Your task to perform on an android device: turn on bluetooth scan Image 0: 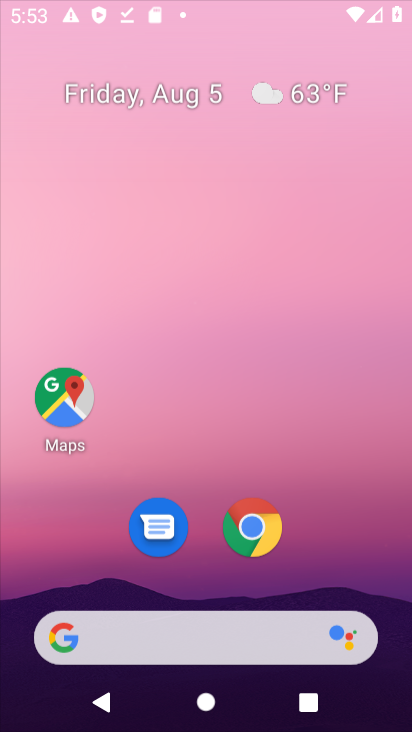
Step 0: click (191, 20)
Your task to perform on an android device: turn on bluetooth scan Image 1: 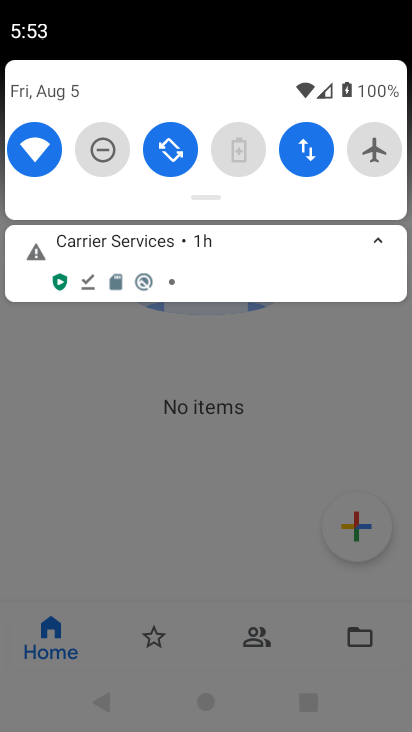
Step 1: drag from (237, 550) to (263, 142)
Your task to perform on an android device: turn on bluetooth scan Image 2: 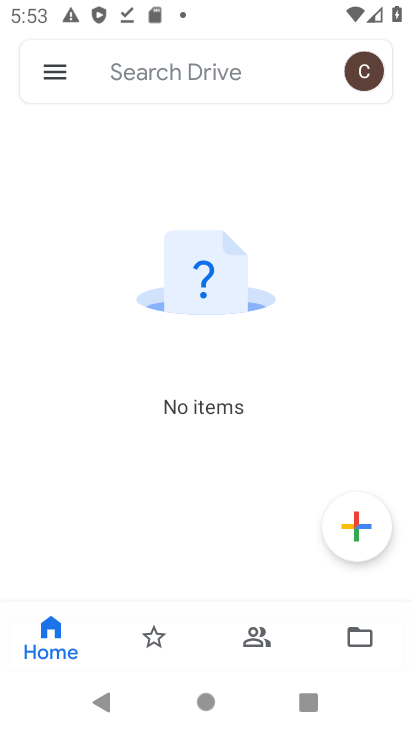
Step 2: press home button
Your task to perform on an android device: turn on bluetooth scan Image 3: 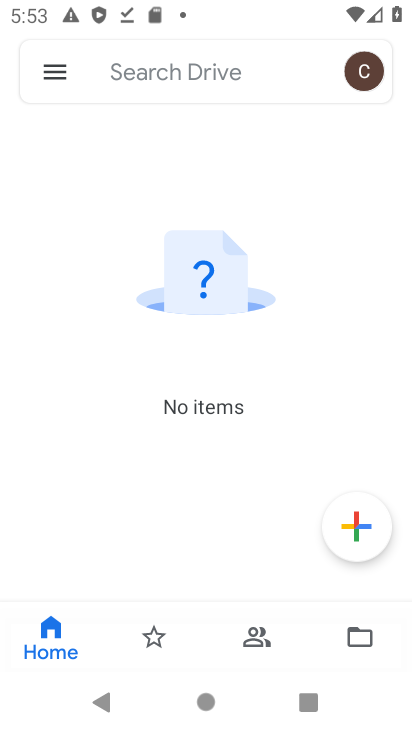
Step 3: press home button
Your task to perform on an android device: turn on bluetooth scan Image 4: 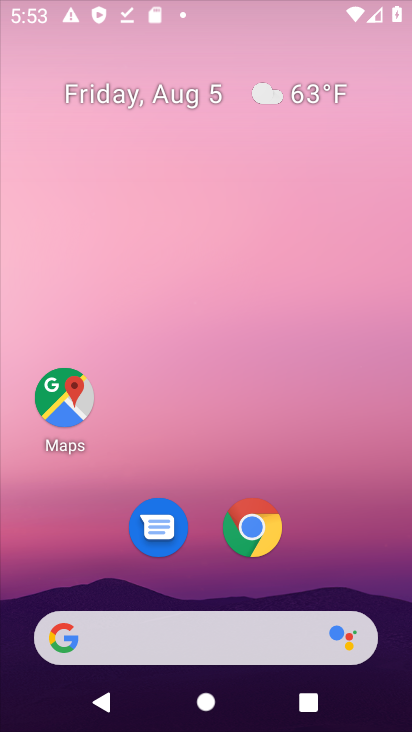
Step 4: drag from (212, 498) to (169, 101)
Your task to perform on an android device: turn on bluetooth scan Image 5: 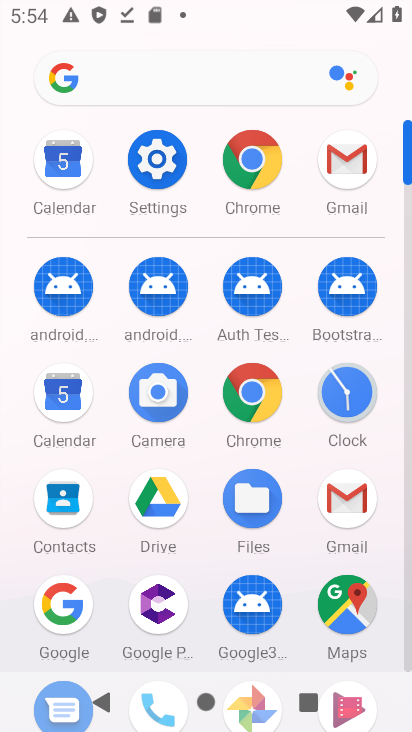
Step 5: click (164, 163)
Your task to perform on an android device: turn on bluetooth scan Image 6: 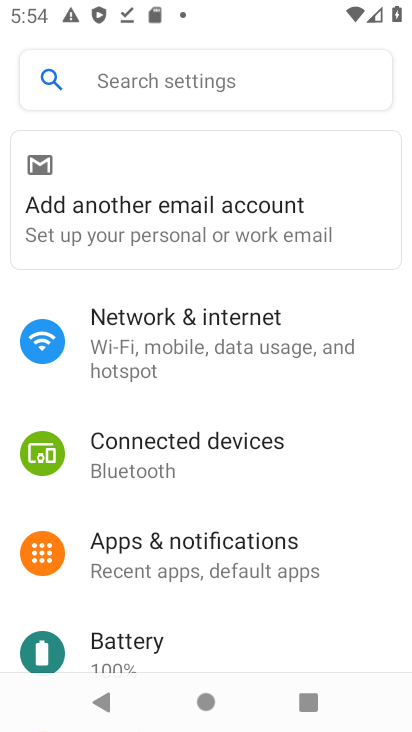
Step 6: drag from (181, 491) to (208, 234)
Your task to perform on an android device: turn on bluetooth scan Image 7: 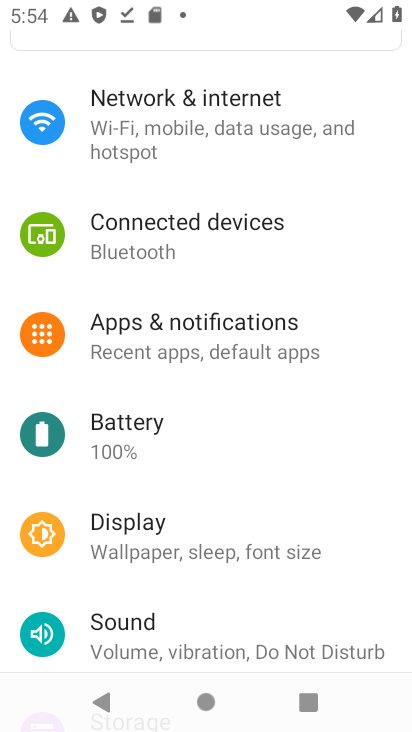
Step 7: drag from (251, 617) to (206, 263)
Your task to perform on an android device: turn on bluetooth scan Image 8: 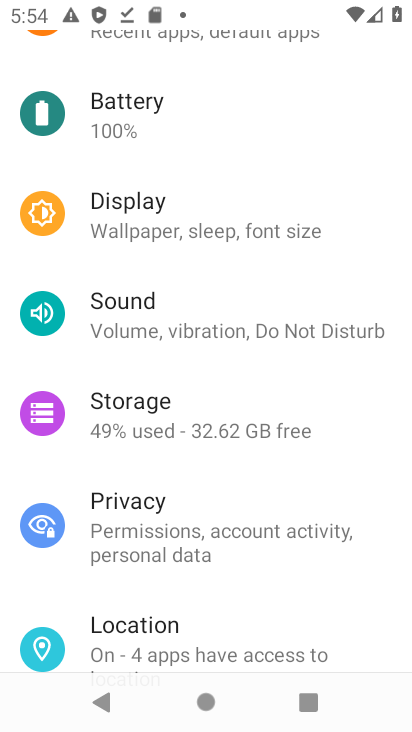
Step 8: click (172, 621)
Your task to perform on an android device: turn on bluetooth scan Image 9: 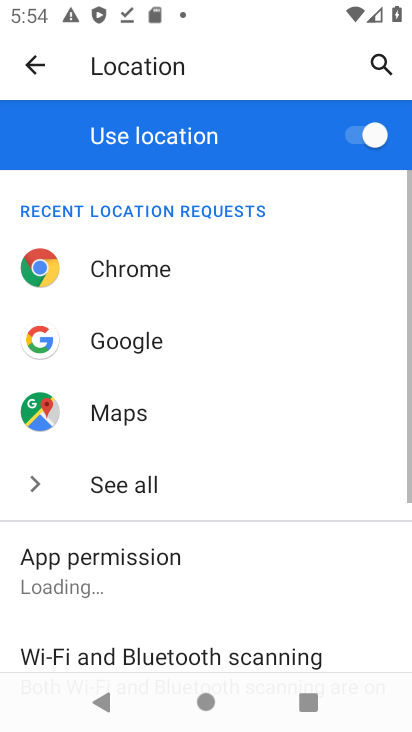
Step 9: drag from (189, 183) to (191, 126)
Your task to perform on an android device: turn on bluetooth scan Image 10: 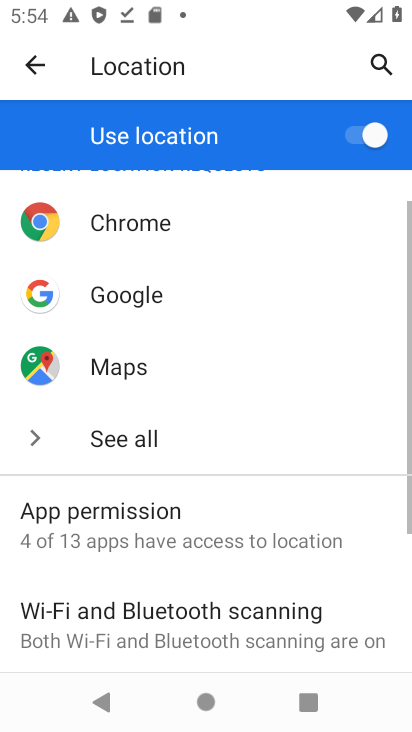
Step 10: click (170, 604)
Your task to perform on an android device: turn on bluetooth scan Image 11: 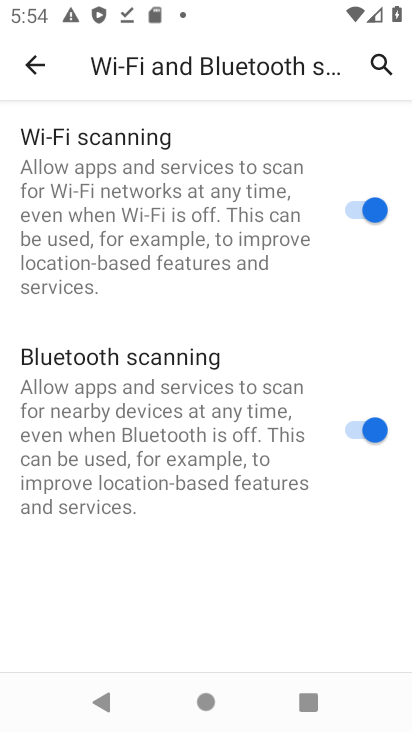
Step 11: task complete